Your task to perform on an android device: turn off location history Image 0: 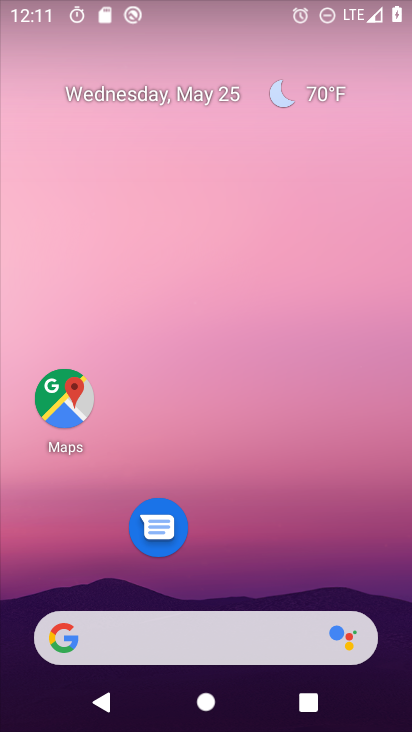
Step 0: drag from (264, 556) to (234, 106)
Your task to perform on an android device: turn off location history Image 1: 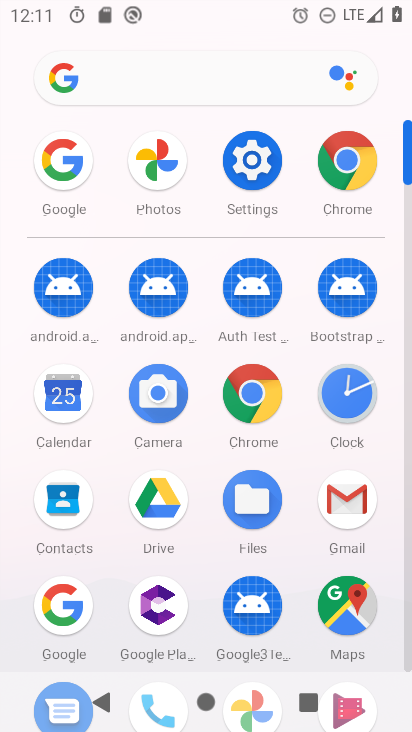
Step 1: click (255, 156)
Your task to perform on an android device: turn off location history Image 2: 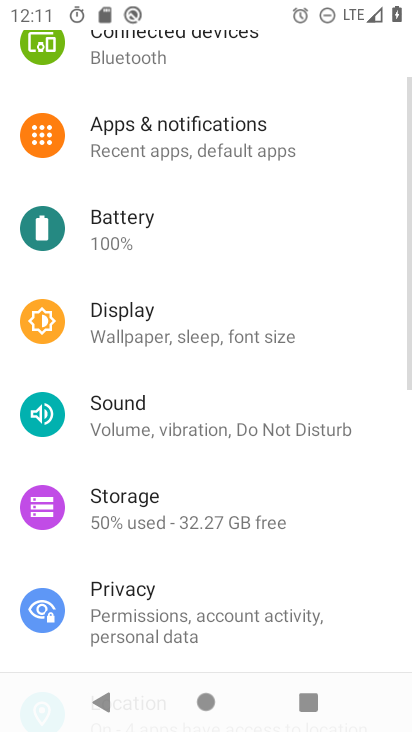
Step 2: drag from (236, 621) to (235, 293)
Your task to perform on an android device: turn off location history Image 3: 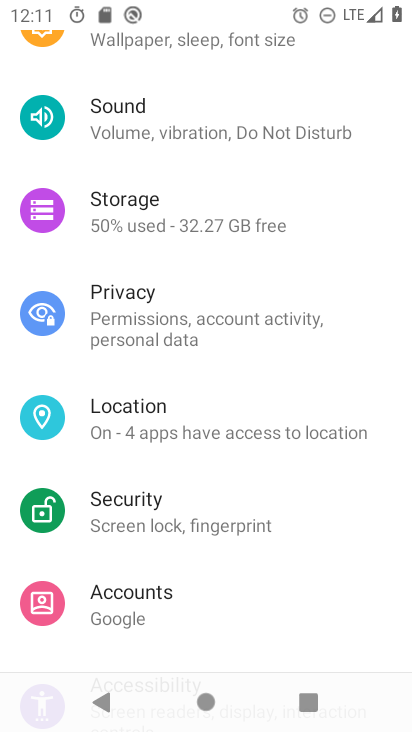
Step 3: click (195, 419)
Your task to perform on an android device: turn off location history Image 4: 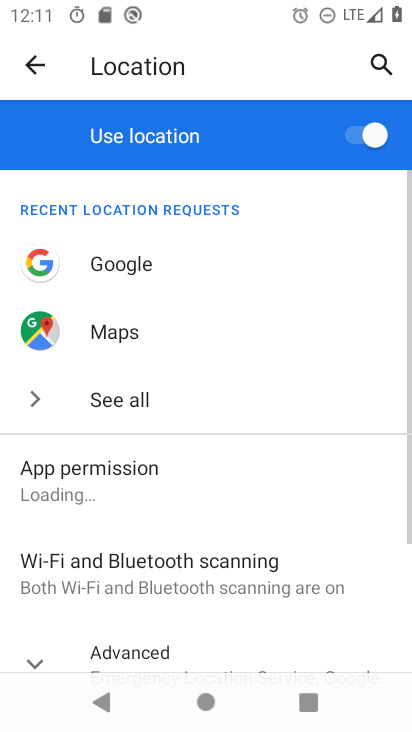
Step 4: drag from (218, 569) to (233, 266)
Your task to perform on an android device: turn off location history Image 5: 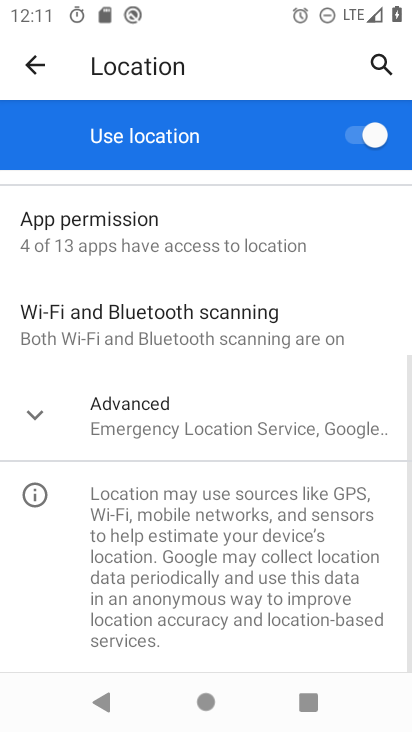
Step 5: click (144, 424)
Your task to perform on an android device: turn off location history Image 6: 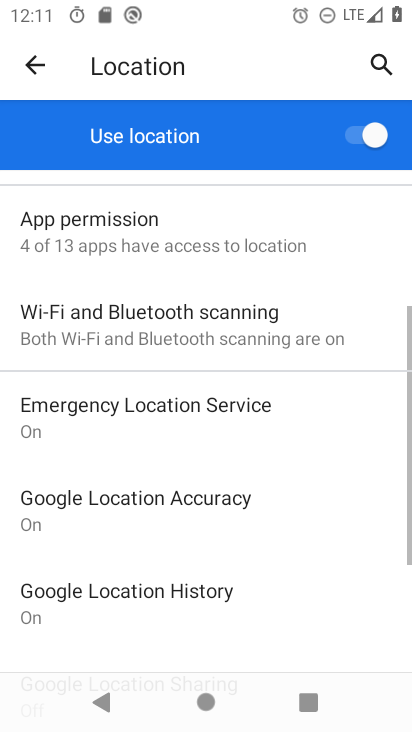
Step 6: drag from (257, 502) to (283, 392)
Your task to perform on an android device: turn off location history Image 7: 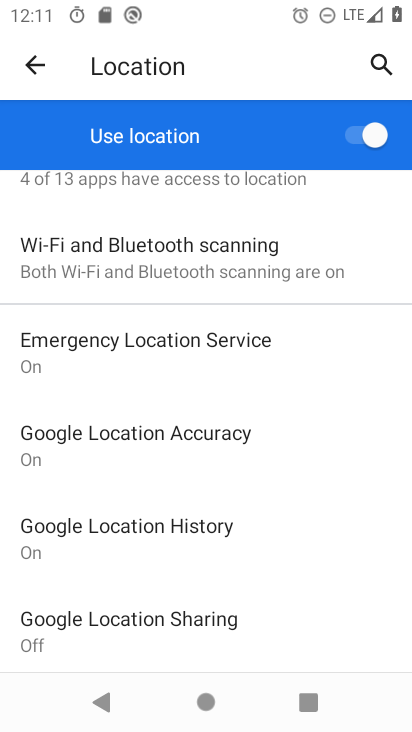
Step 7: click (124, 545)
Your task to perform on an android device: turn off location history Image 8: 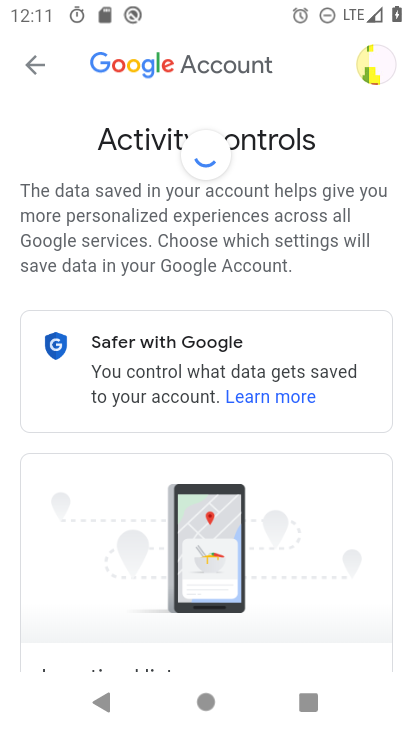
Step 8: drag from (314, 589) to (317, 106)
Your task to perform on an android device: turn off location history Image 9: 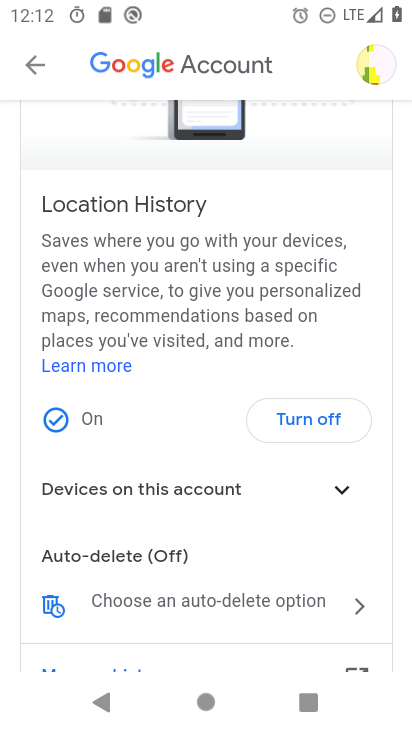
Step 9: click (314, 421)
Your task to perform on an android device: turn off location history Image 10: 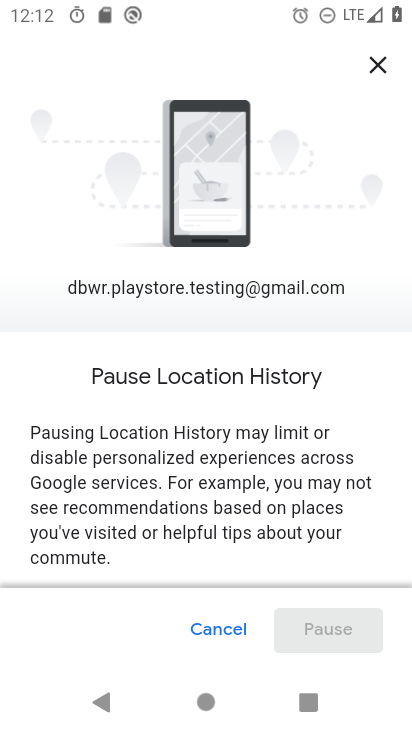
Step 10: drag from (338, 556) to (327, 16)
Your task to perform on an android device: turn off location history Image 11: 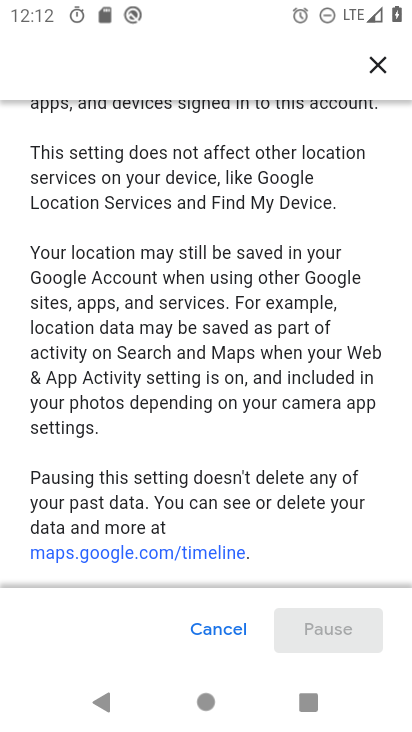
Step 11: drag from (323, 518) to (325, 171)
Your task to perform on an android device: turn off location history Image 12: 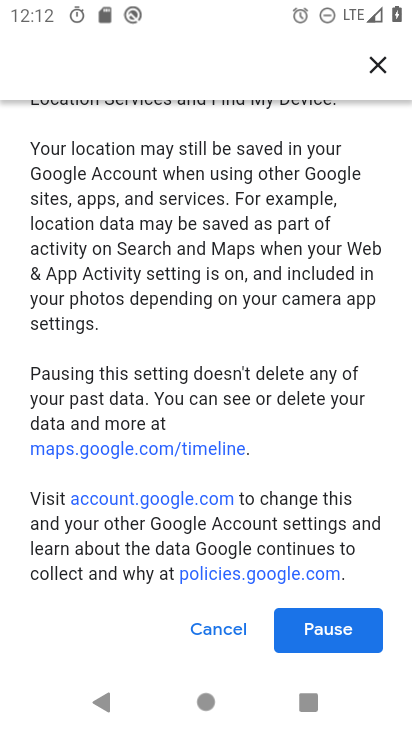
Step 12: click (314, 623)
Your task to perform on an android device: turn off location history Image 13: 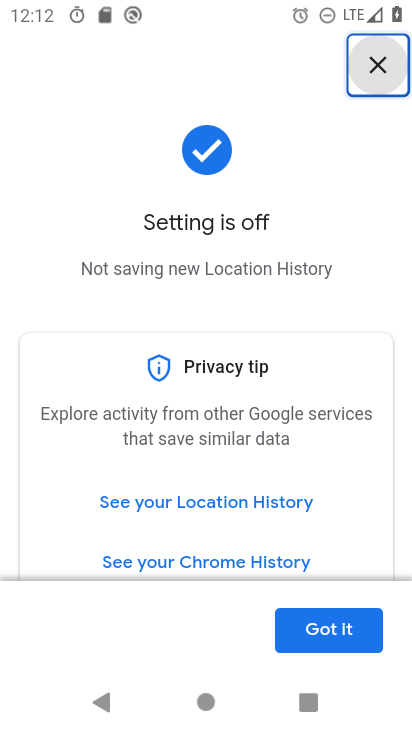
Step 13: click (342, 636)
Your task to perform on an android device: turn off location history Image 14: 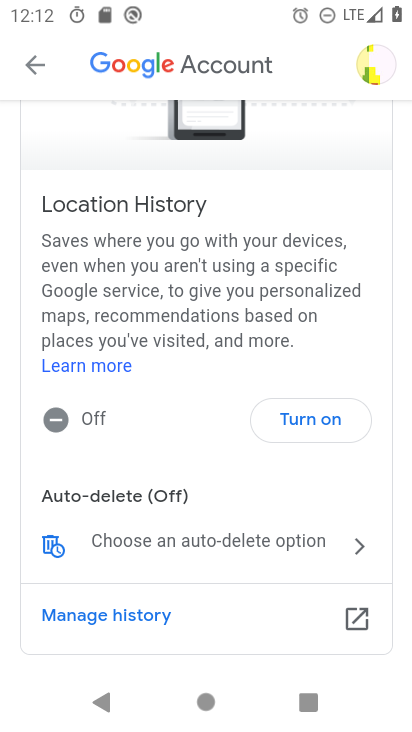
Step 14: task complete